Your task to perform on an android device: Search for sushi restaurants on Maps Image 0: 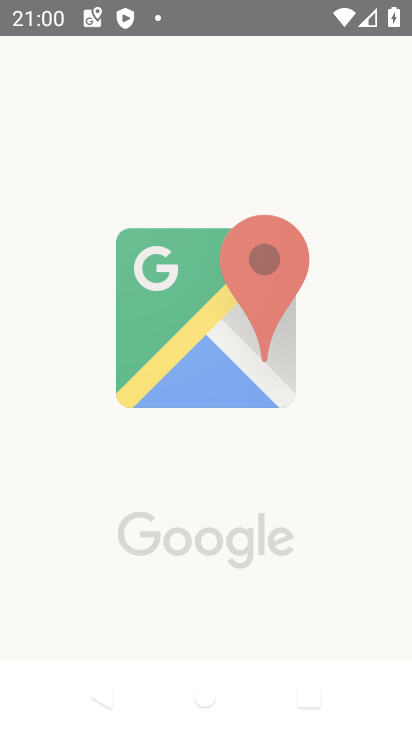
Step 0: click (241, 482)
Your task to perform on an android device: Search for sushi restaurants on Maps Image 1: 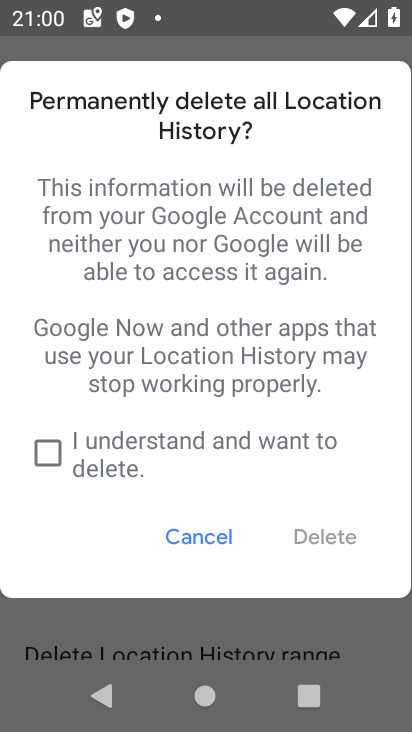
Step 1: press back button
Your task to perform on an android device: Search for sushi restaurants on Maps Image 2: 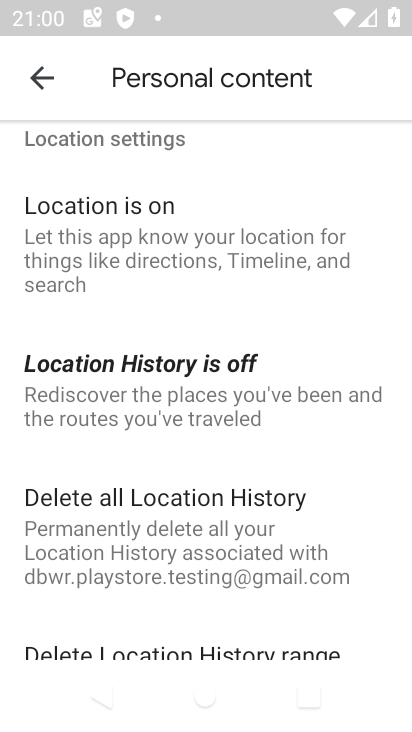
Step 2: press back button
Your task to perform on an android device: Search for sushi restaurants on Maps Image 3: 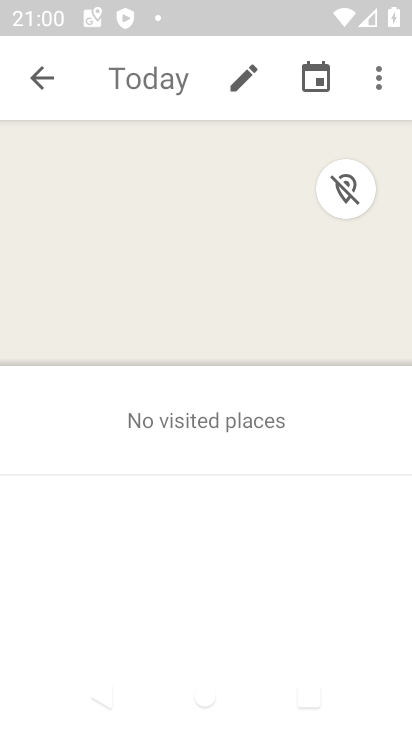
Step 3: press back button
Your task to perform on an android device: Search for sushi restaurants on Maps Image 4: 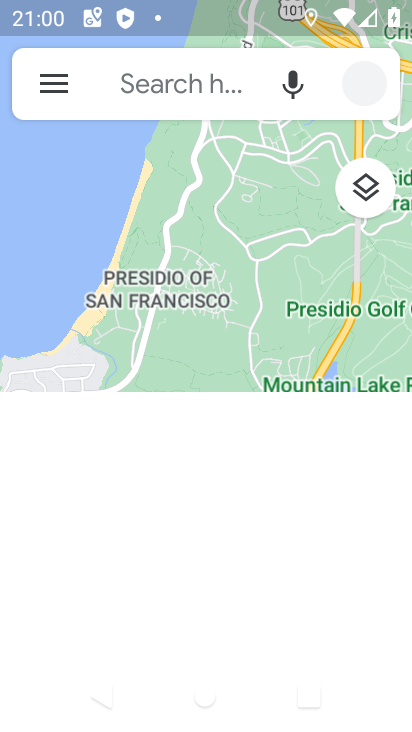
Step 4: press back button
Your task to perform on an android device: Search for sushi restaurants on Maps Image 5: 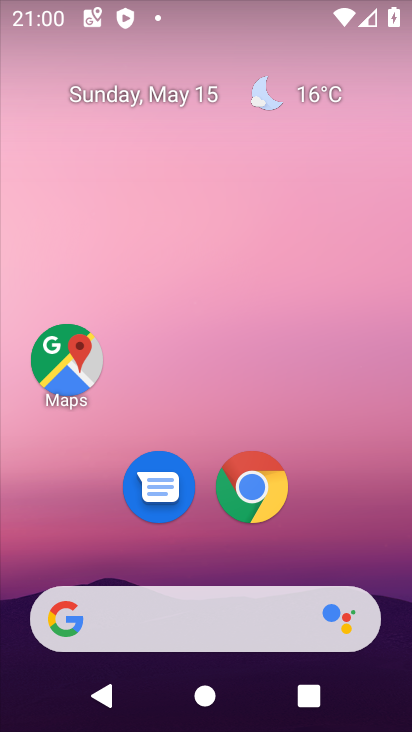
Step 5: click (66, 354)
Your task to perform on an android device: Search for sushi restaurants on Maps Image 6: 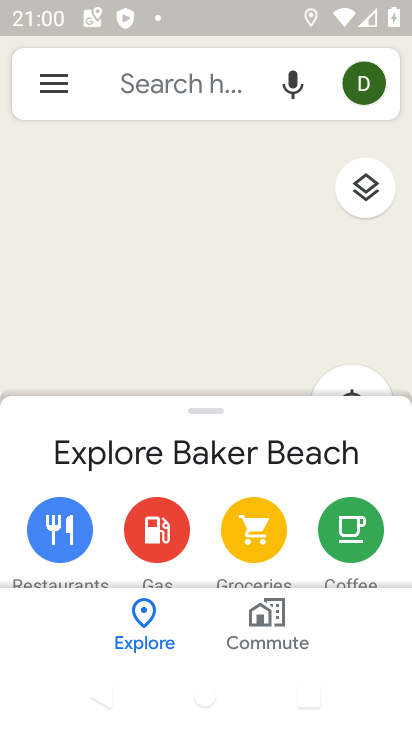
Step 6: click (168, 83)
Your task to perform on an android device: Search for sushi restaurants on Maps Image 7: 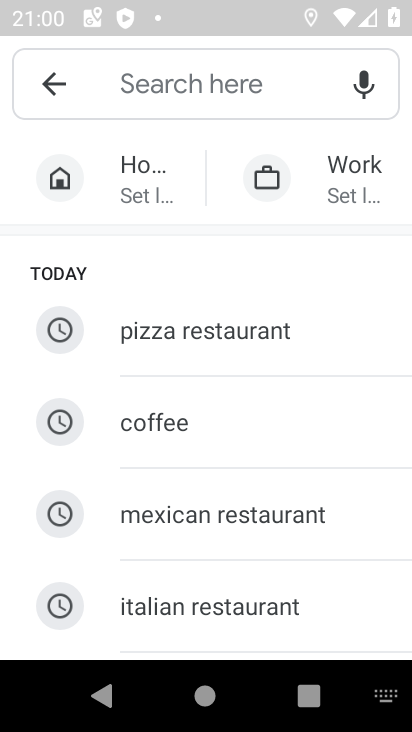
Step 7: type "sushi restaurants"
Your task to perform on an android device: Search for sushi restaurants on Maps Image 8: 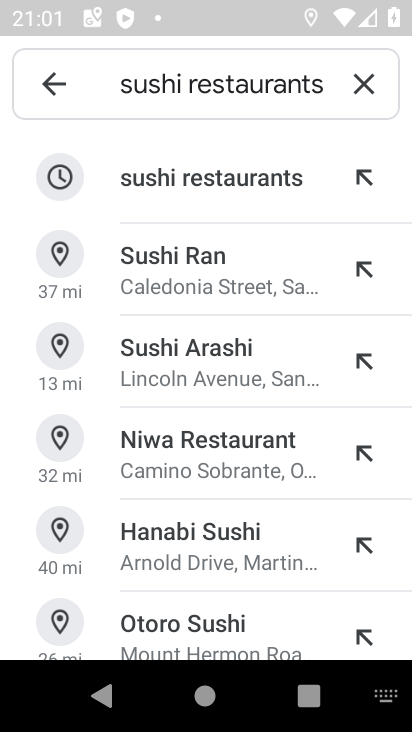
Step 8: click (203, 174)
Your task to perform on an android device: Search for sushi restaurants on Maps Image 9: 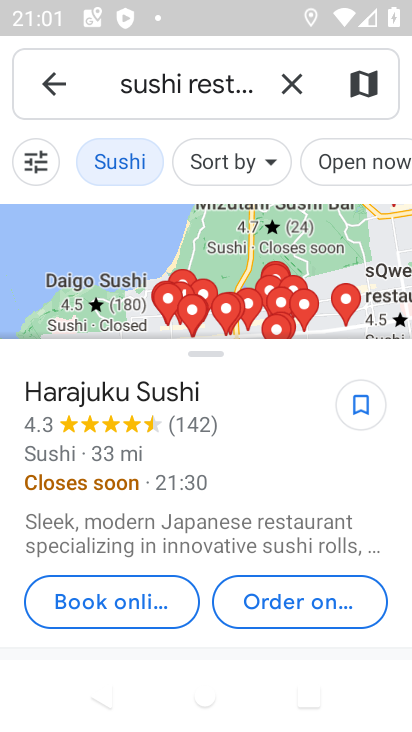
Step 9: task complete